Your task to perform on an android device: Search for alienware area 51 on ebay, select the first entry, and add it to the cart. Image 0: 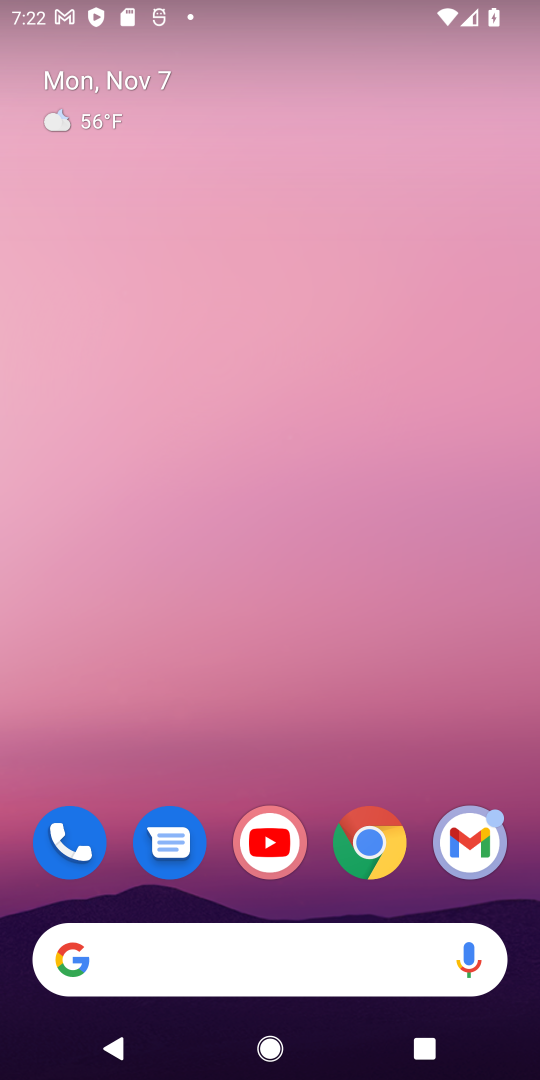
Step 0: click (376, 855)
Your task to perform on an android device: Search for alienware area 51 on ebay, select the first entry, and add it to the cart. Image 1: 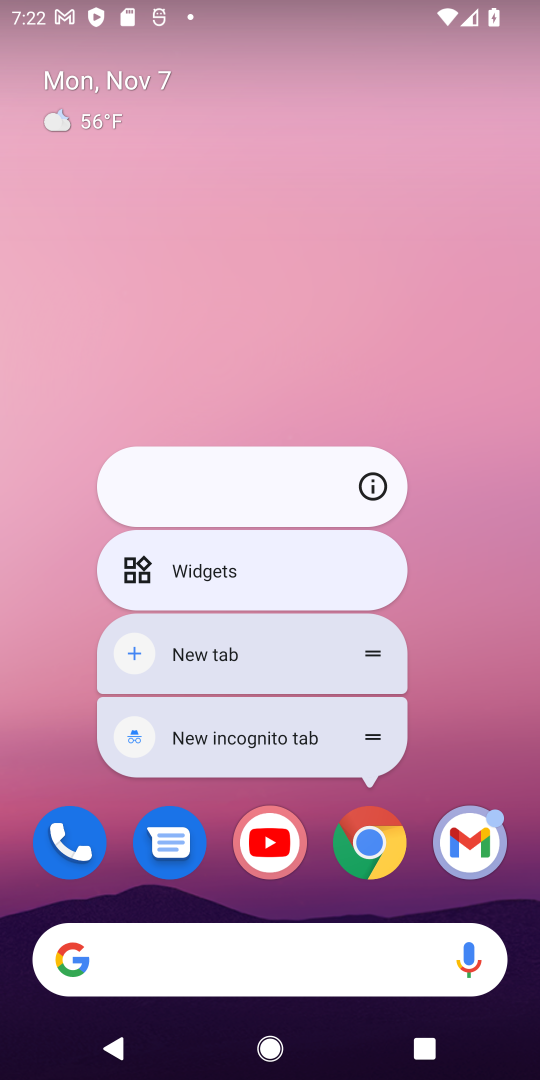
Step 1: click (374, 851)
Your task to perform on an android device: Search for alienware area 51 on ebay, select the first entry, and add it to the cart. Image 2: 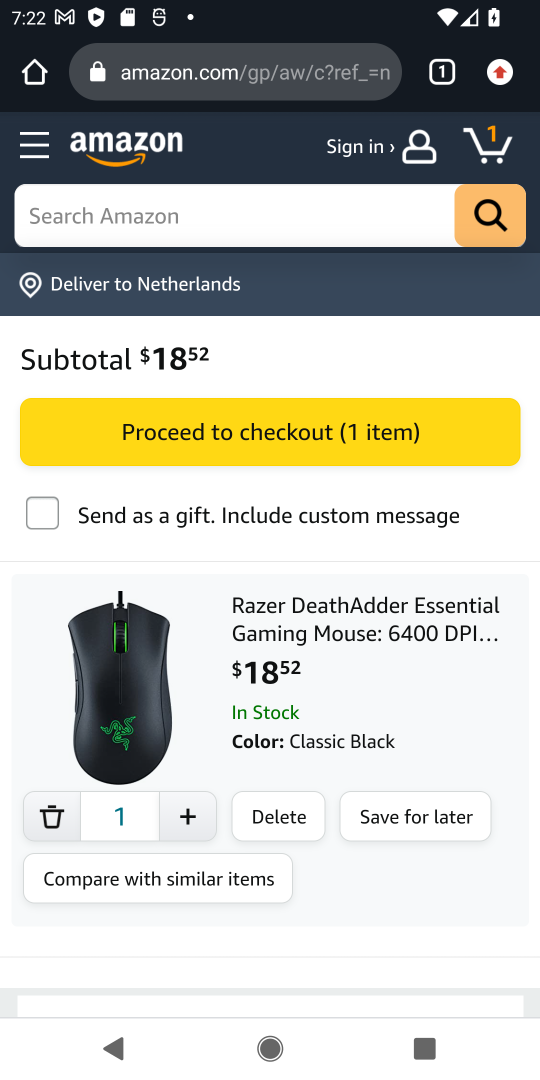
Step 2: click (282, 66)
Your task to perform on an android device: Search for alienware area 51 on ebay, select the first entry, and add it to the cart. Image 3: 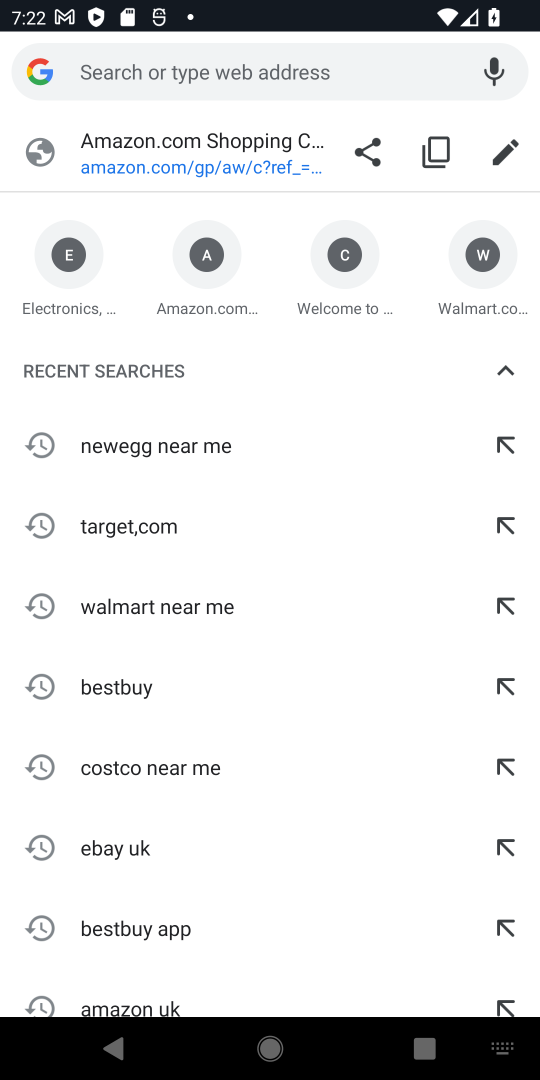
Step 3: click (74, 301)
Your task to perform on an android device: Search for alienware area 51 on ebay, select the first entry, and add it to the cart. Image 4: 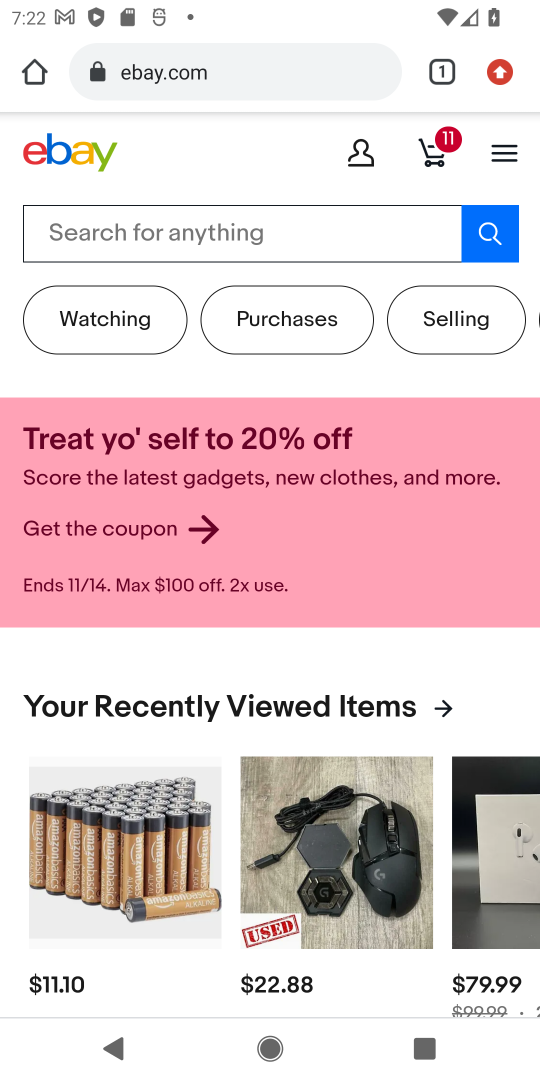
Step 4: click (187, 232)
Your task to perform on an android device: Search for alienware area 51 on ebay, select the first entry, and add it to the cart. Image 5: 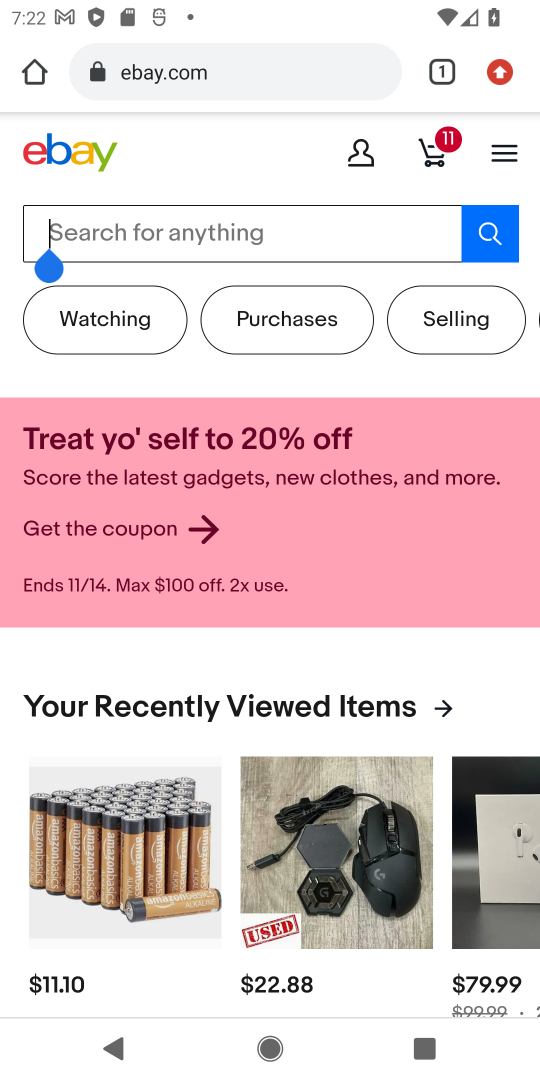
Step 5: type "alienware area 51"
Your task to perform on an android device: Search for alienware area 51 on ebay, select the first entry, and add it to the cart. Image 6: 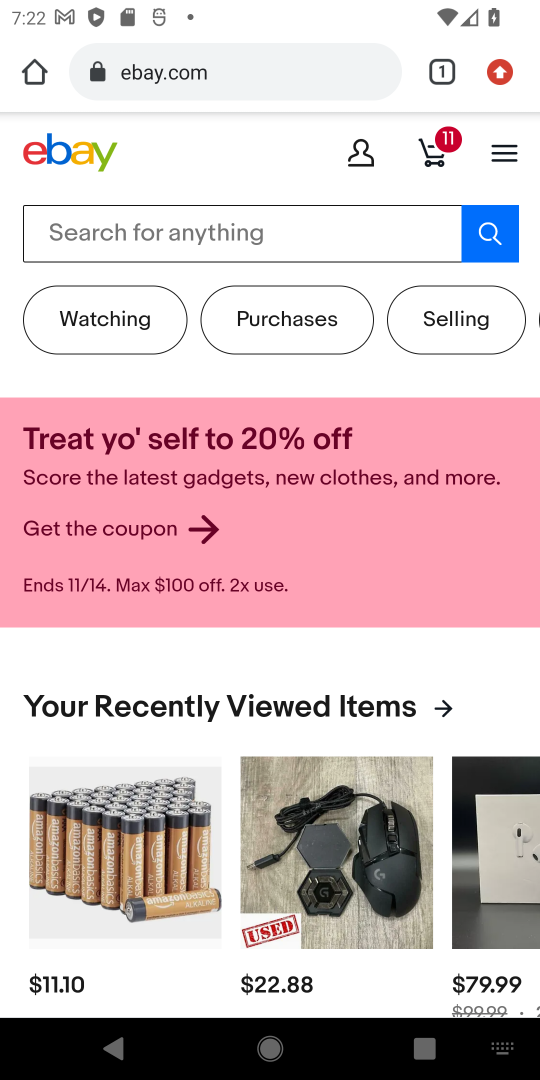
Step 6: press enter
Your task to perform on an android device: Search for alienware area 51 on ebay, select the first entry, and add it to the cart. Image 7: 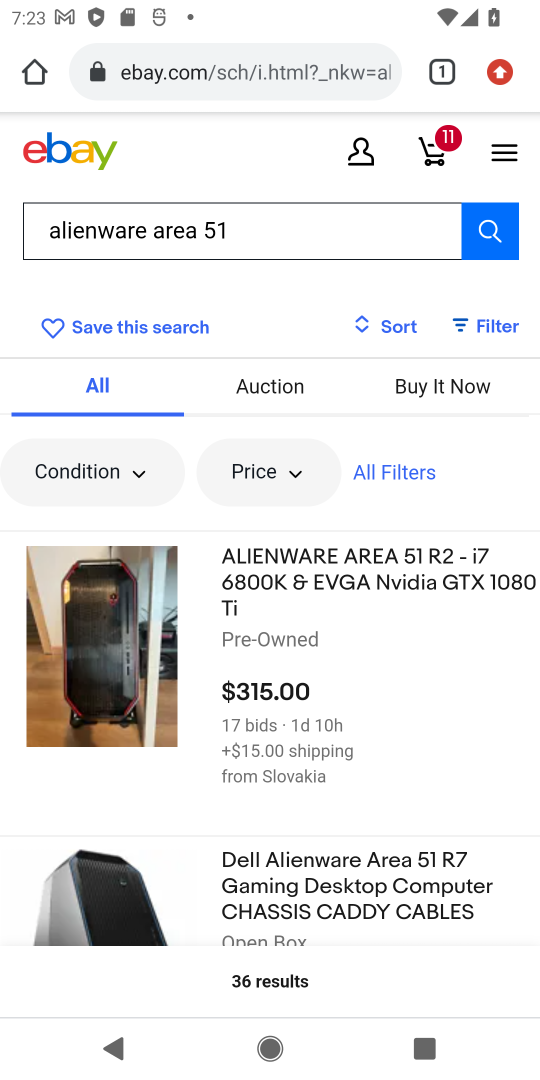
Step 7: click (325, 610)
Your task to perform on an android device: Search for alienware area 51 on ebay, select the first entry, and add it to the cart. Image 8: 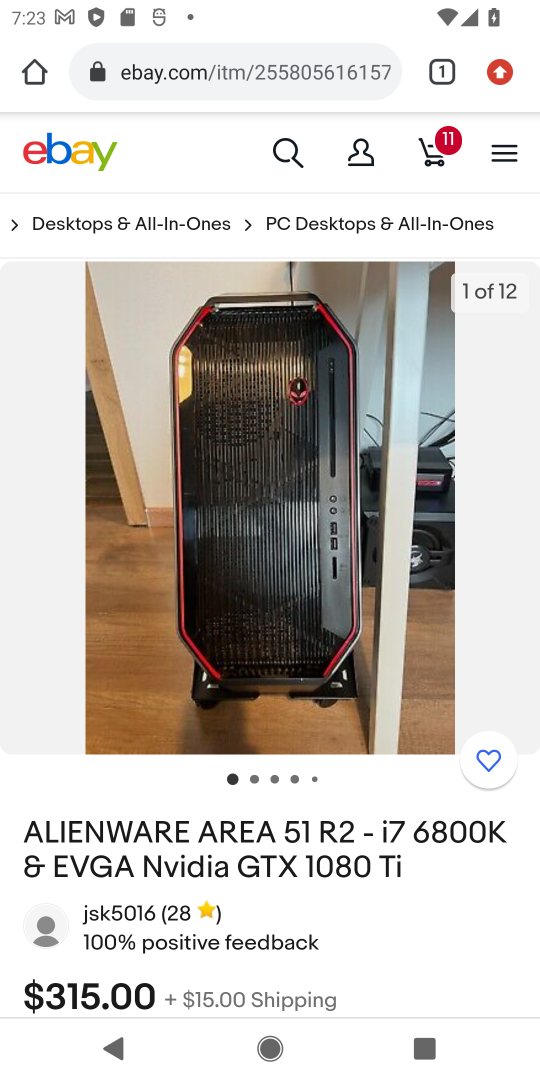
Step 8: task complete